Your task to perform on an android device: Turn off the flashlight Image 0: 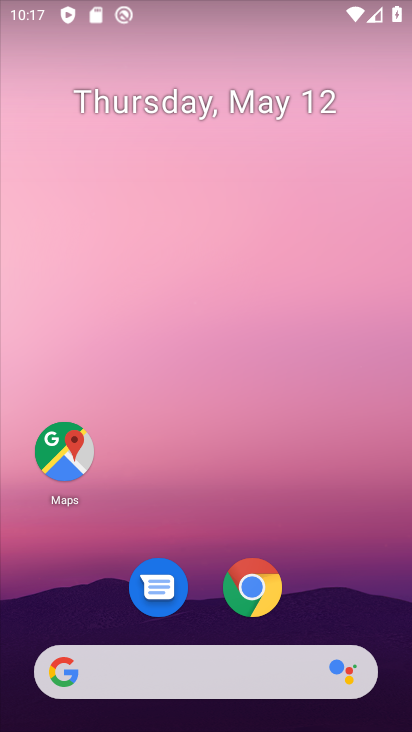
Step 0: drag from (325, 535) to (338, 82)
Your task to perform on an android device: Turn off the flashlight Image 1: 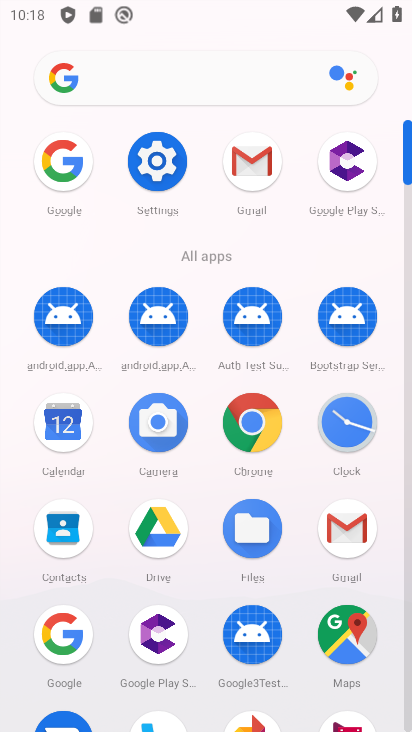
Step 1: click (153, 176)
Your task to perform on an android device: Turn off the flashlight Image 2: 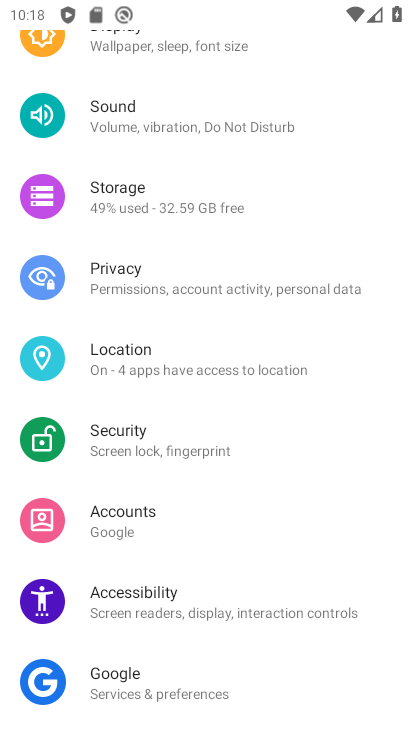
Step 2: task complete